Your task to perform on an android device: empty trash in the gmail app Image 0: 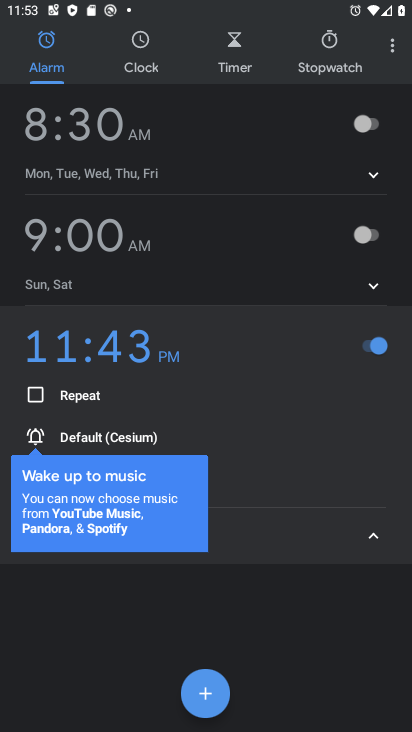
Step 0: press home button
Your task to perform on an android device: empty trash in the gmail app Image 1: 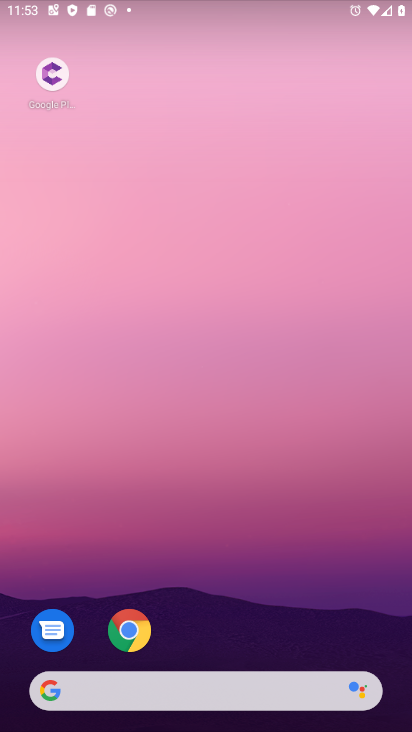
Step 1: drag from (382, 607) to (357, 152)
Your task to perform on an android device: empty trash in the gmail app Image 2: 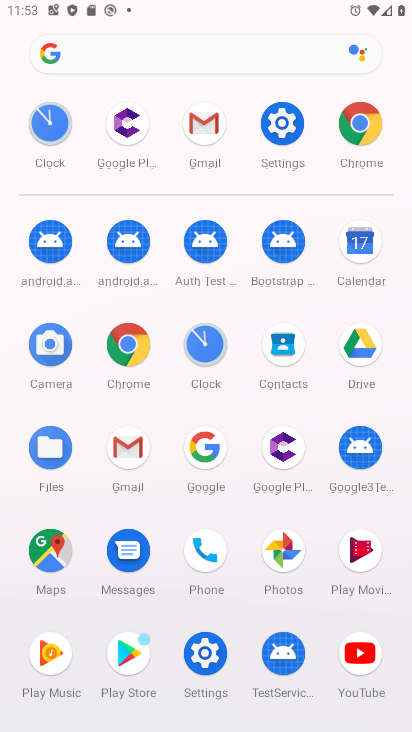
Step 2: click (120, 461)
Your task to perform on an android device: empty trash in the gmail app Image 3: 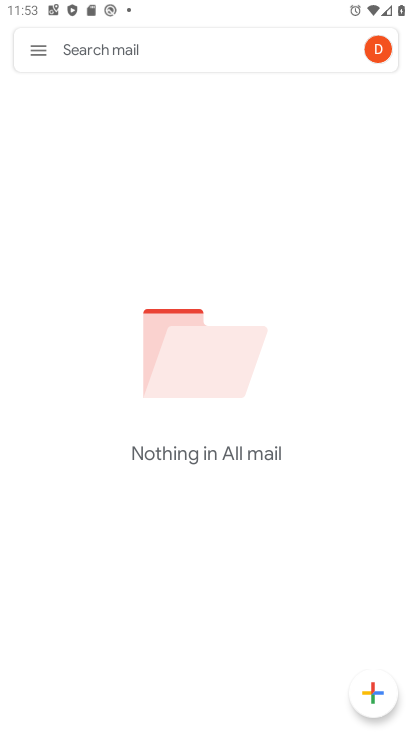
Step 3: click (34, 55)
Your task to perform on an android device: empty trash in the gmail app Image 4: 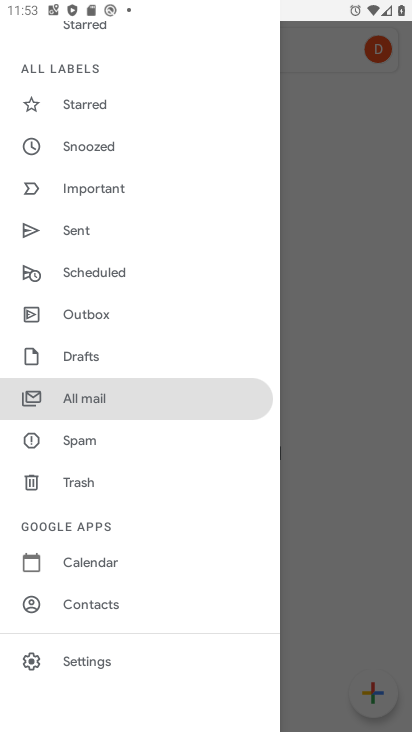
Step 4: click (100, 482)
Your task to perform on an android device: empty trash in the gmail app Image 5: 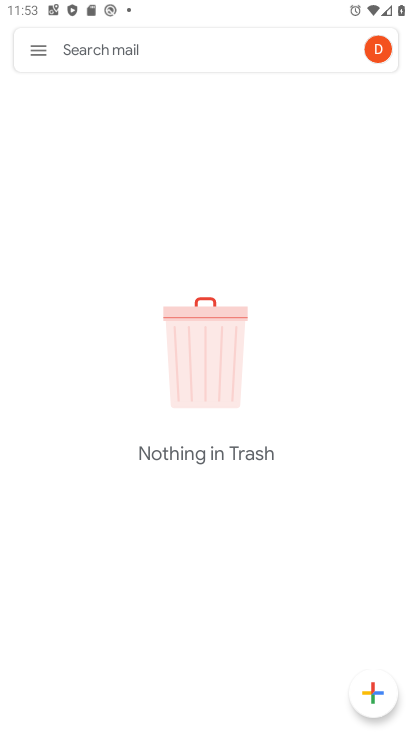
Step 5: task complete